Your task to perform on an android device: open the mobile data screen to see how much data has been used Image 0: 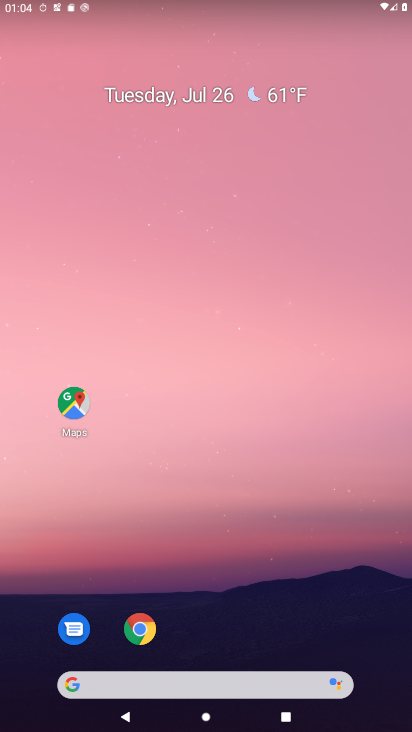
Step 0: drag from (205, 643) to (227, 220)
Your task to perform on an android device: open the mobile data screen to see how much data has been used Image 1: 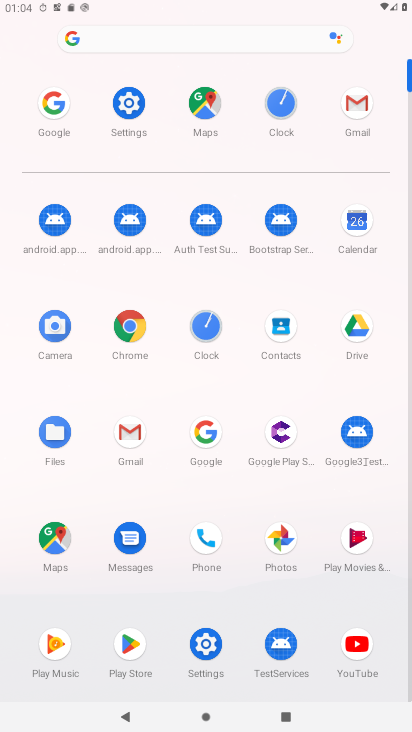
Step 1: click (125, 110)
Your task to perform on an android device: open the mobile data screen to see how much data has been used Image 2: 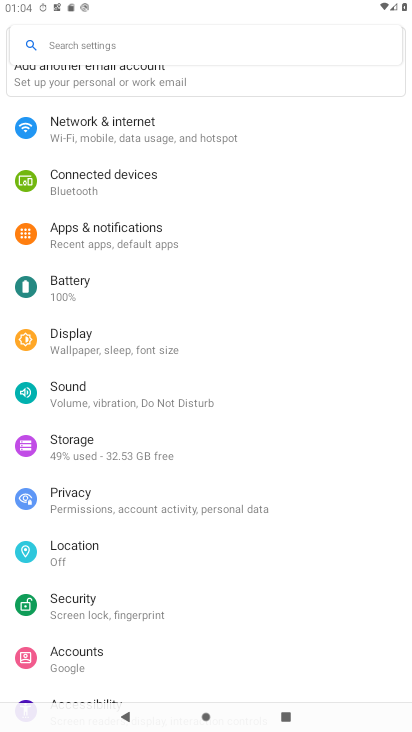
Step 2: click (152, 131)
Your task to perform on an android device: open the mobile data screen to see how much data has been used Image 3: 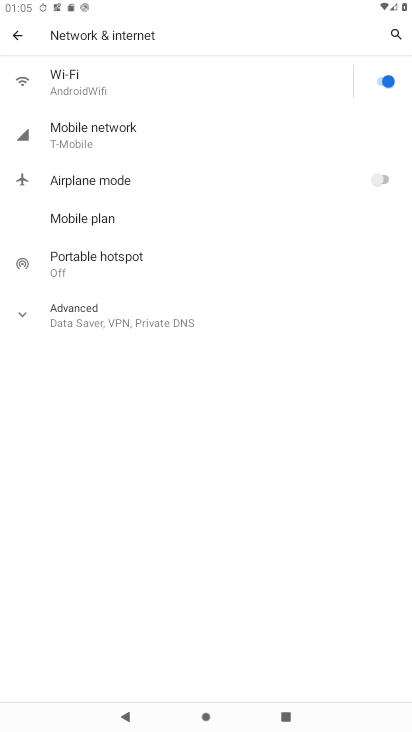
Step 3: click (136, 149)
Your task to perform on an android device: open the mobile data screen to see how much data has been used Image 4: 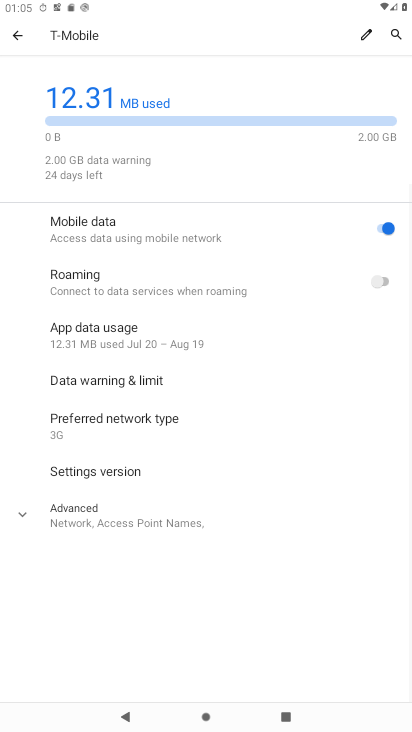
Step 4: click (134, 342)
Your task to perform on an android device: open the mobile data screen to see how much data has been used Image 5: 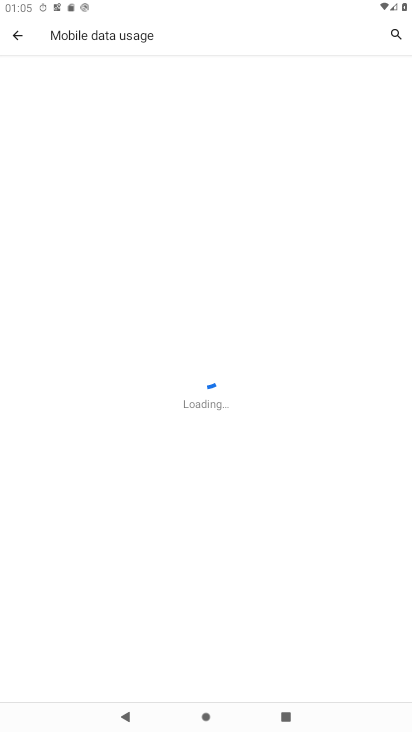
Step 5: task complete